Your task to perform on an android device: Search for vegetarian restaurants on Maps Image 0: 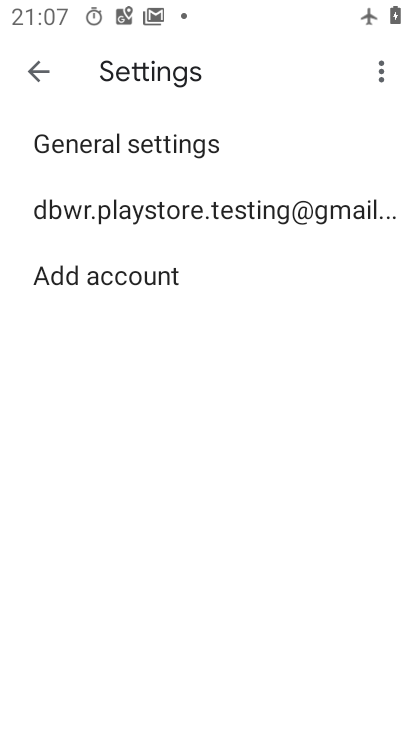
Step 0: press home button
Your task to perform on an android device: Search for vegetarian restaurants on Maps Image 1: 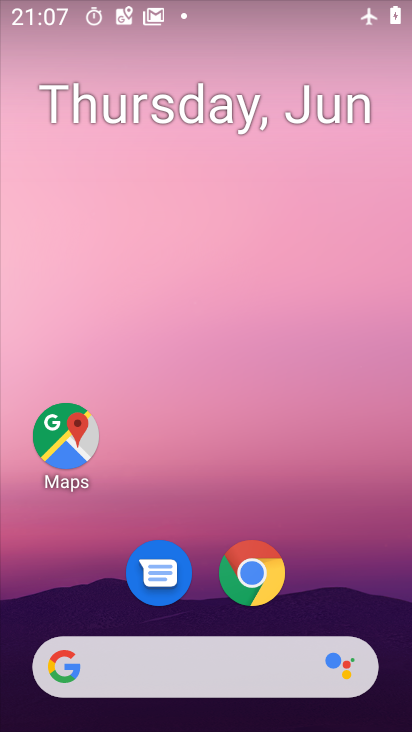
Step 1: click (81, 429)
Your task to perform on an android device: Search for vegetarian restaurants on Maps Image 2: 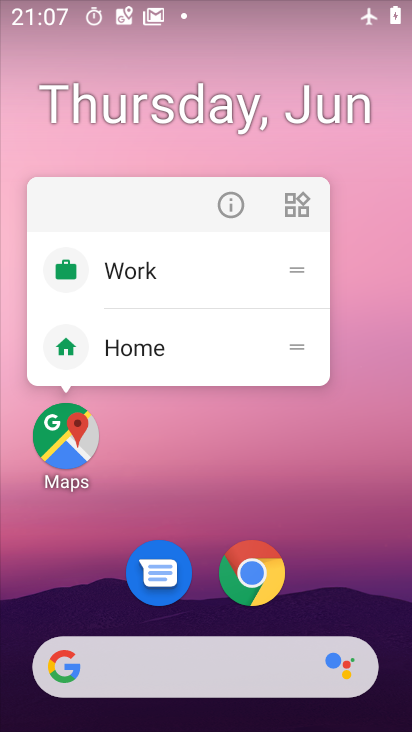
Step 2: click (80, 407)
Your task to perform on an android device: Search for vegetarian restaurants on Maps Image 3: 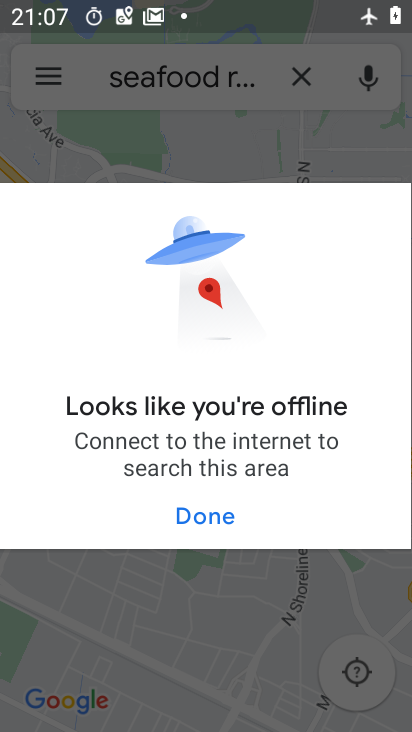
Step 3: click (196, 510)
Your task to perform on an android device: Search for vegetarian restaurants on Maps Image 4: 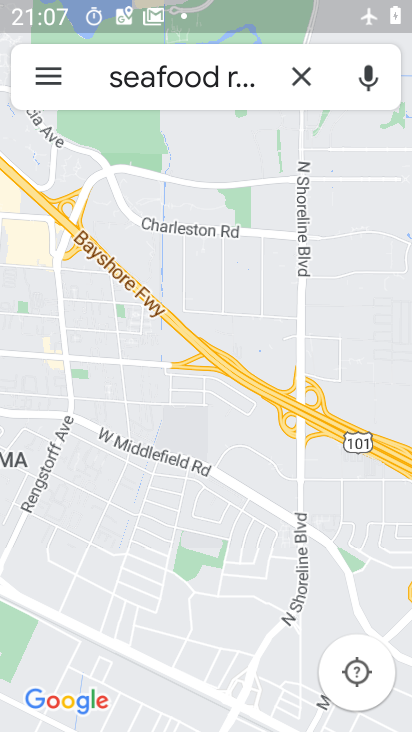
Step 4: click (290, 73)
Your task to perform on an android device: Search for vegetarian restaurants on Maps Image 5: 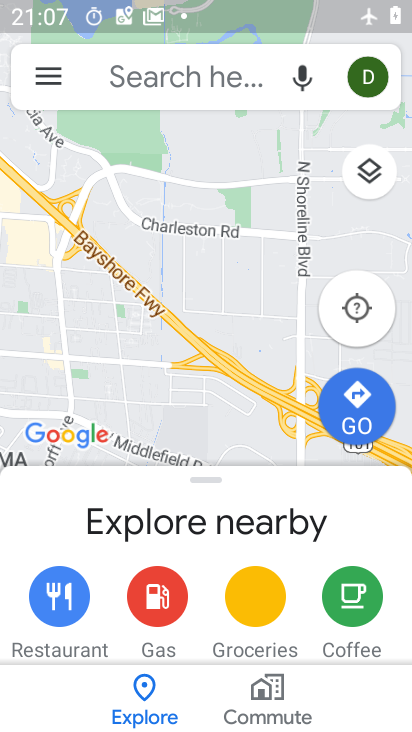
Step 5: click (145, 72)
Your task to perform on an android device: Search for vegetarian restaurants on Maps Image 6: 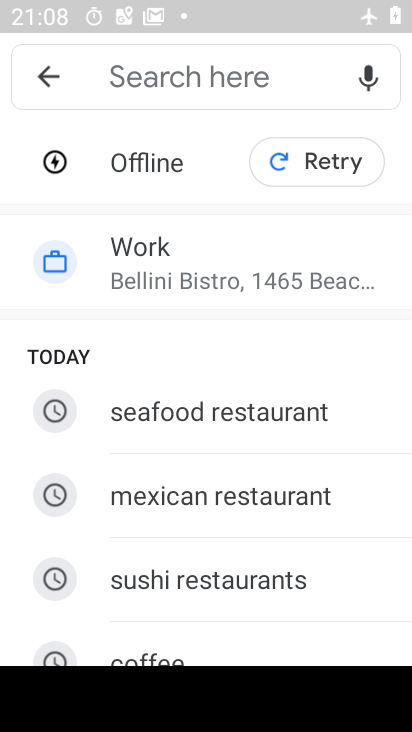
Step 6: drag from (237, 539) to (303, 270)
Your task to perform on an android device: Search for vegetarian restaurants on Maps Image 7: 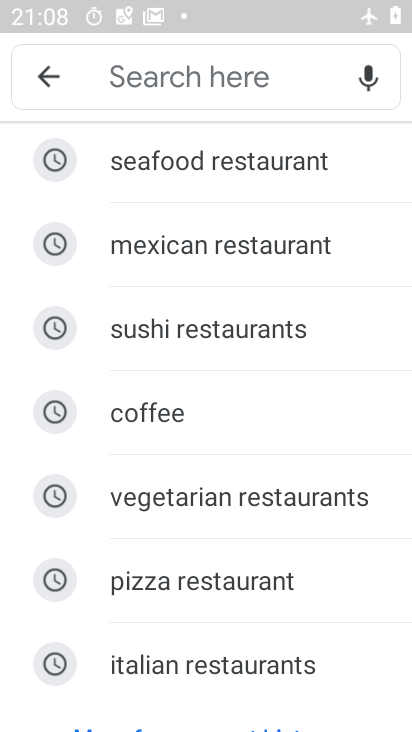
Step 7: click (212, 497)
Your task to perform on an android device: Search for vegetarian restaurants on Maps Image 8: 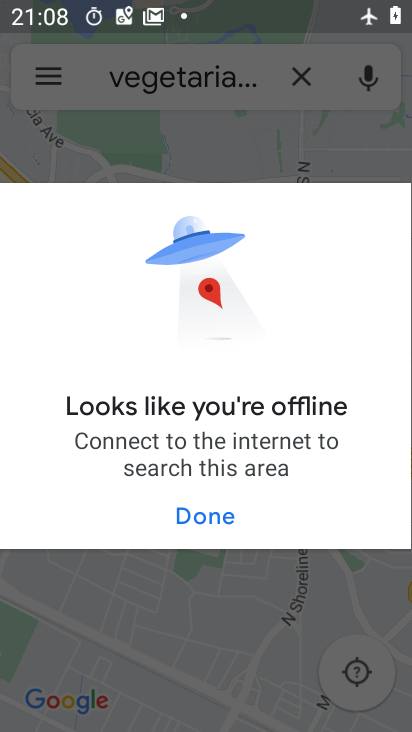
Step 8: click (216, 512)
Your task to perform on an android device: Search for vegetarian restaurants on Maps Image 9: 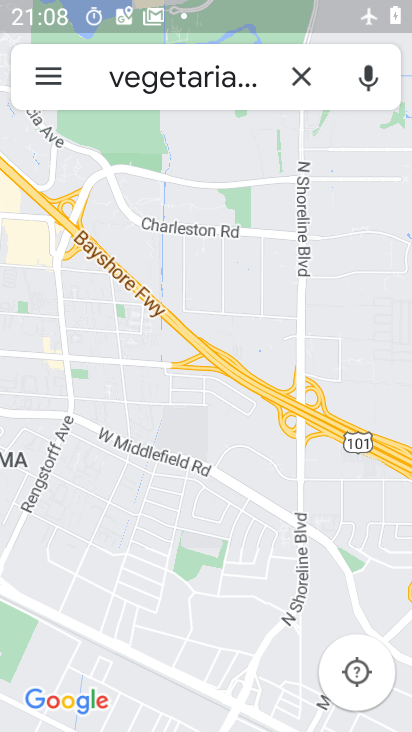
Step 9: task complete